Your task to perform on an android device: Open Youtube and go to the subscriptions tab Image 0: 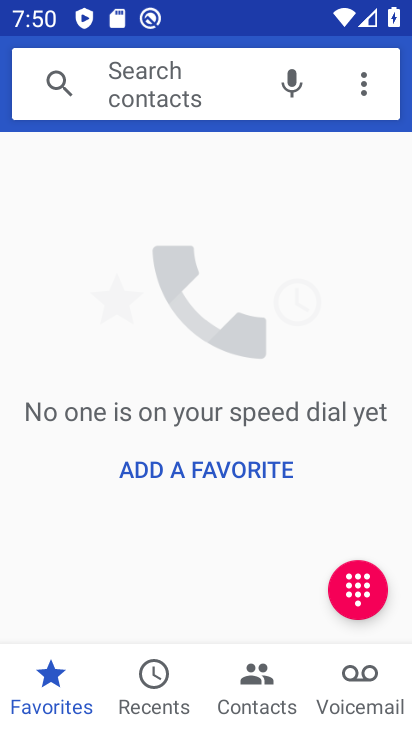
Step 0: click (232, 609)
Your task to perform on an android device: Open Youtube and go to the subscriptions tab Image 1: 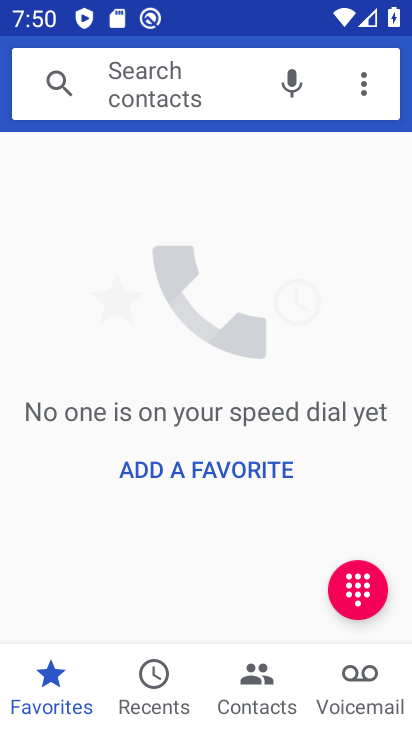
Step 1: press home button
Your task to perform on an android device: Open Youtube and go to the subscriptions tab Image 2: 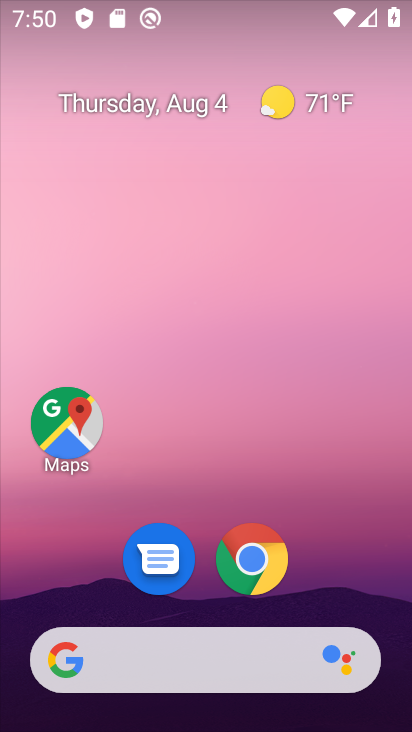
Step 2: drag from (223, 640) to (139, 10)
Your task to perform on an android device: Open Youtube and go to the subscriptions tab Image 3: 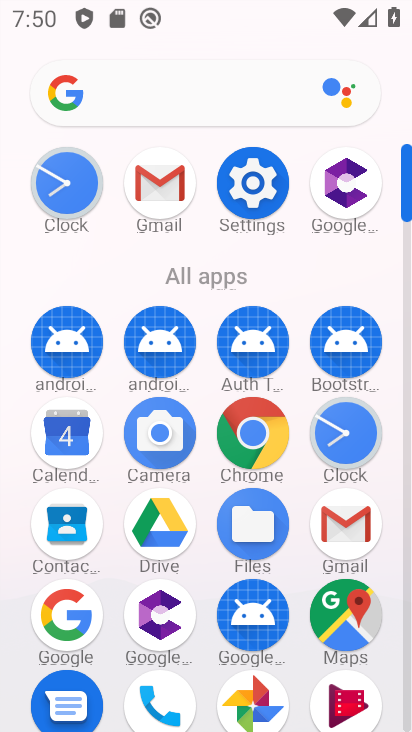
Step 3: drag from (213, 671) to (178, 150)
Your task to perform on an android device: Open Youtube and go to the subscriptions tab Image 4: 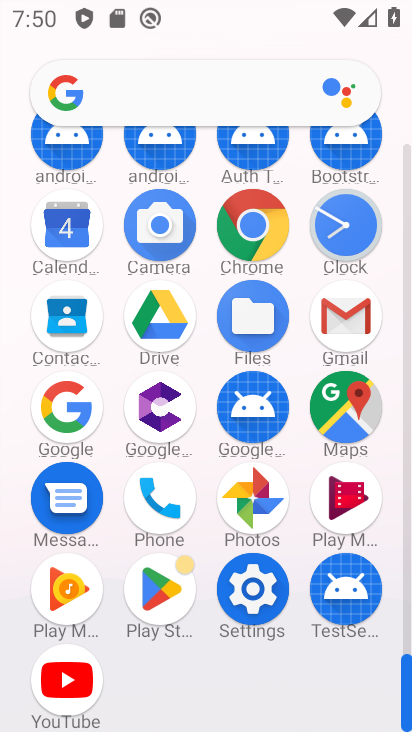
Step 4: click (48, 680)
Your task to perform on an android device: Open Youtube and go to the subscriptions tab Image 5: 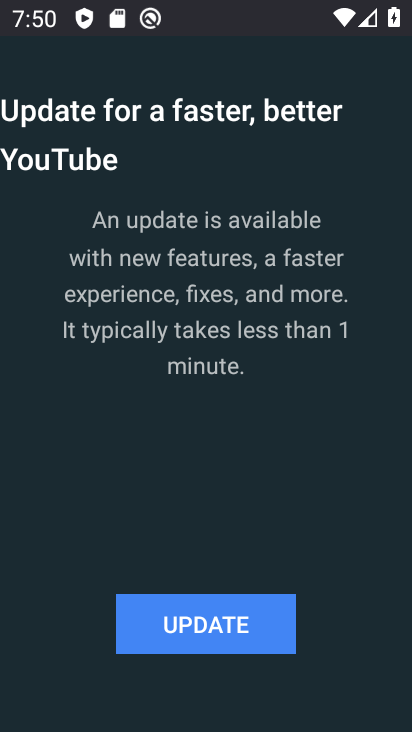
Step 5: click (203, 645)
Your task to perform on an android device: Open Youtube and go to the subscriptions tab Image 6: 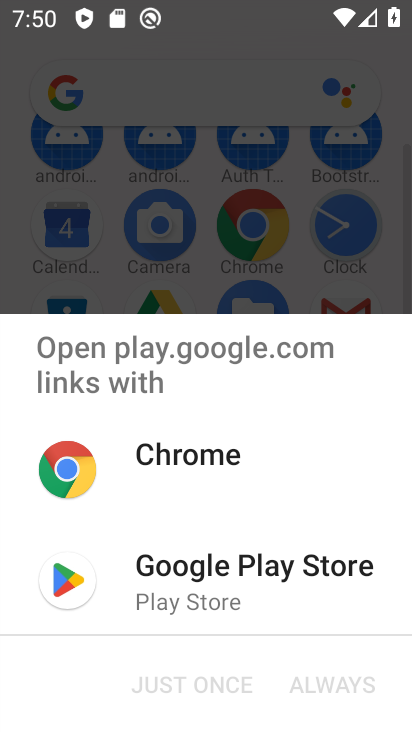
Step 6: click (222, 577)
Your task to perform on an android device: Open Youtube and go to the subscriptions tab Image 7: 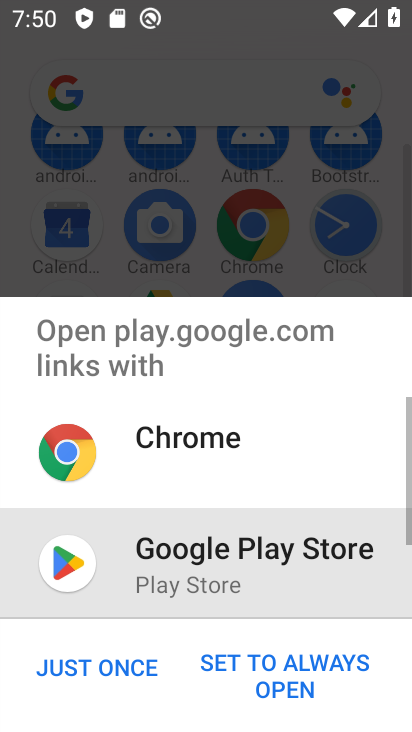
Step 7: click (119, 658)
Your task to perform on an android device: Open Youtube and go to the subscriptions tab Image 8: 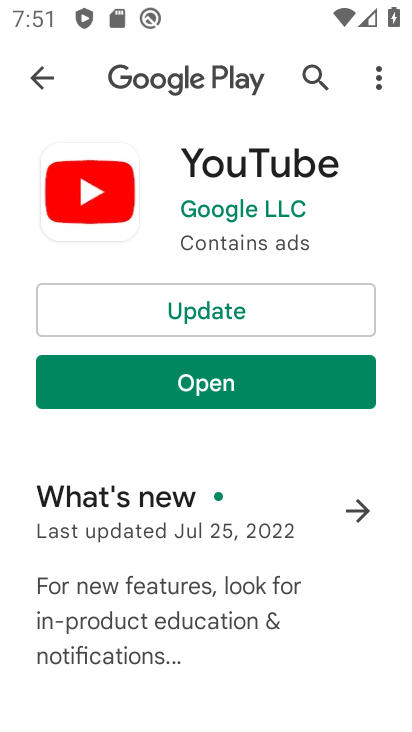
Step 8: drag from (270, 402) to (287, 614)
Your task to perform on an android device: Open Youtube and go to the subscriptions tab Image 9: 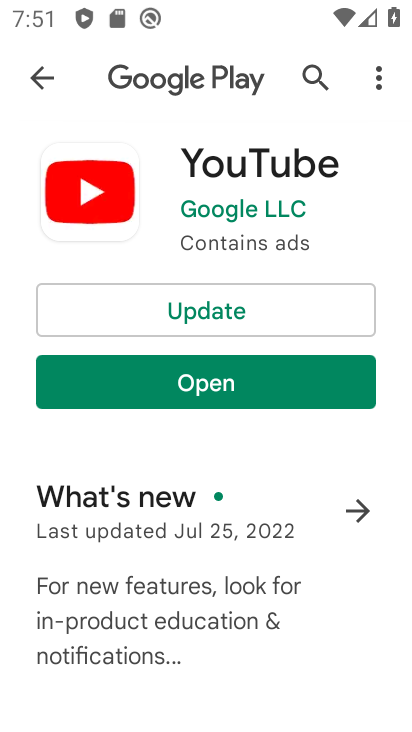
Step 9: click (178, 322)
Your task to perform on an android device: Open Youtube and go to the subscriptions tab Image 10: 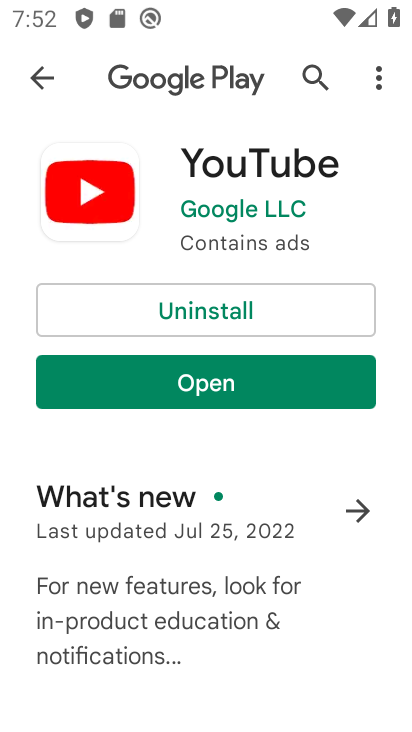
Step 10: click (251, 392)
Your task to perform on an android device: Open Youtube and go to the subscriptions tab Image 11: 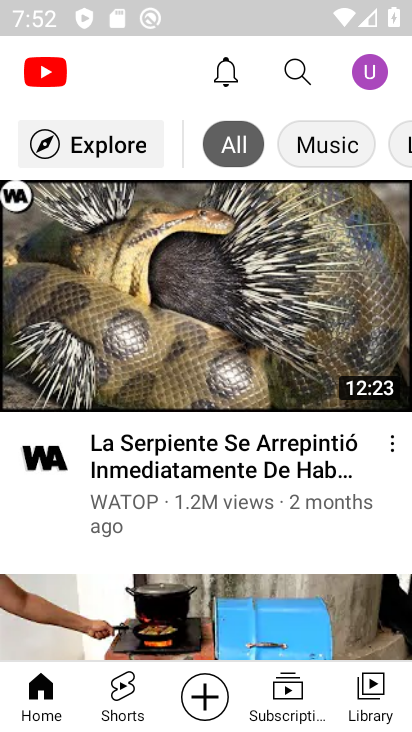
Step 11: click (291, 697)
Your task to perform on an android device: Open Youtube and go to the subscriptions tab Image 12: 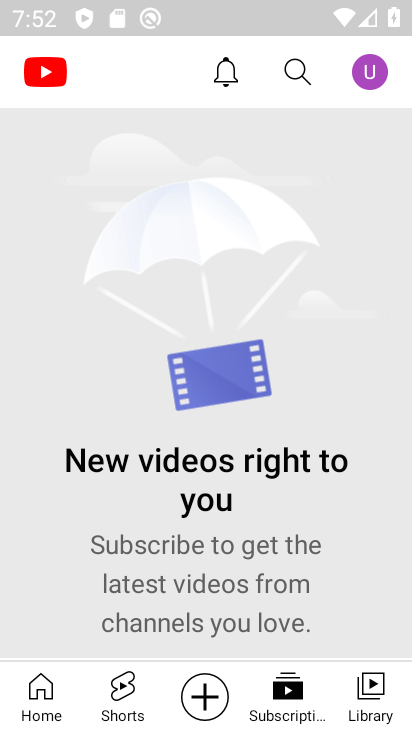
Step 12: task complete